Your task to perform on an android device: open app "Gmail" Image 0: 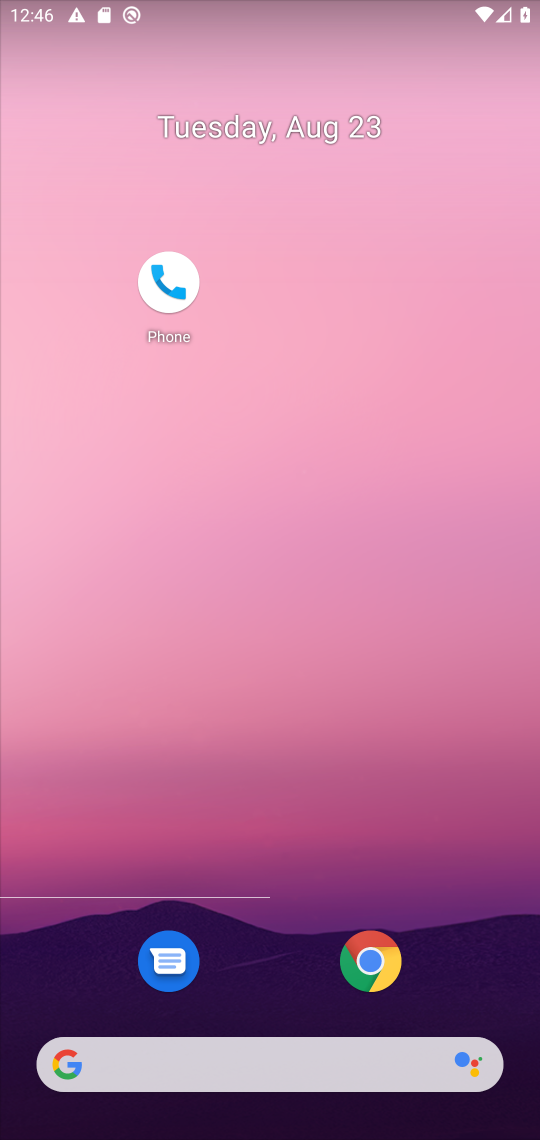
Step 0: task complete